Your task to perform on an android device: turn on wifi Image 0: 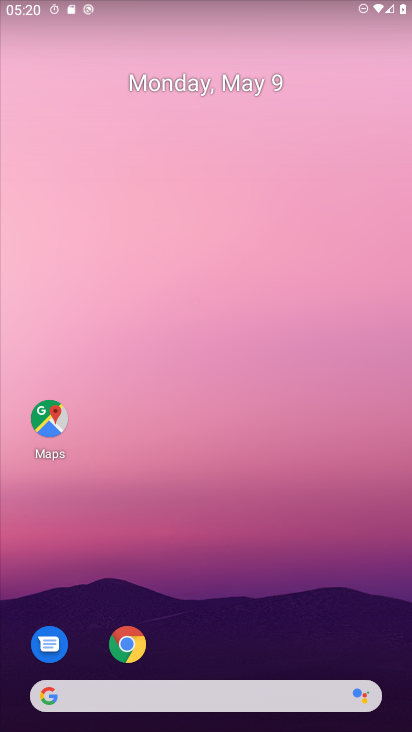
Step 0: drag from (229, 635) to (226, 158)
Your task to perform on an android device: turn on wifi Image 1: 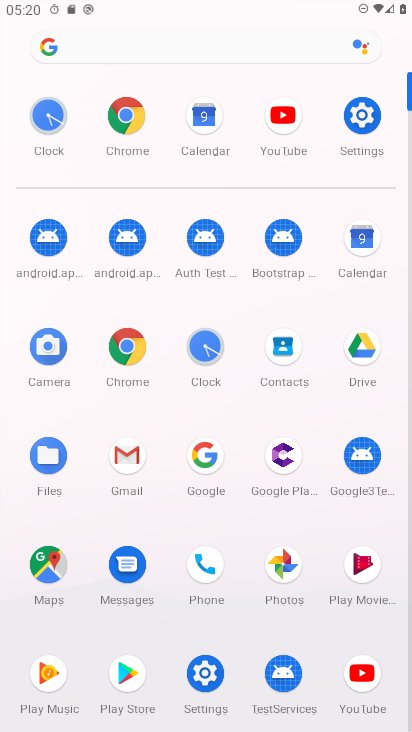
Step 1: click (360, 116)
Your task to perform on an android device: turn on wifi Image 2: 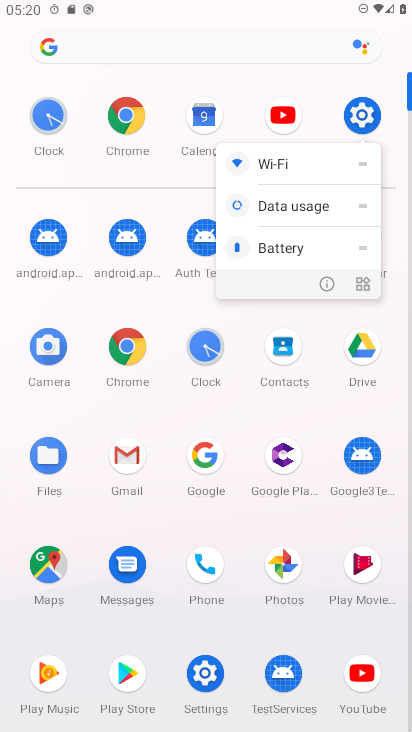
Step 2: click (269, 162)
Your task to perform on an android device: turn on wifi Image 3: 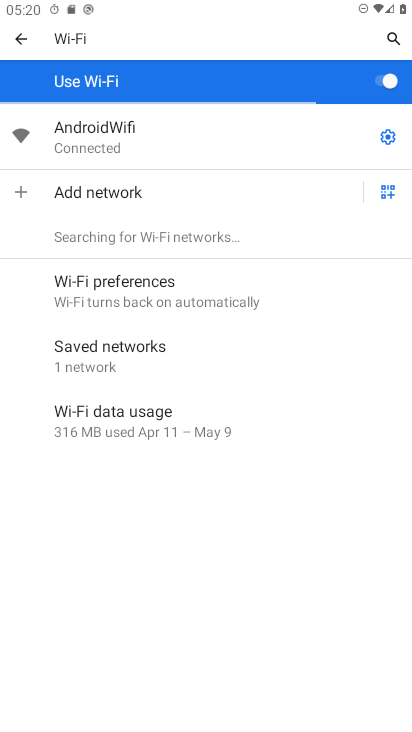
Step 3: task complete